Your task to perform on an android device: Is it going to rain today? Image 0: 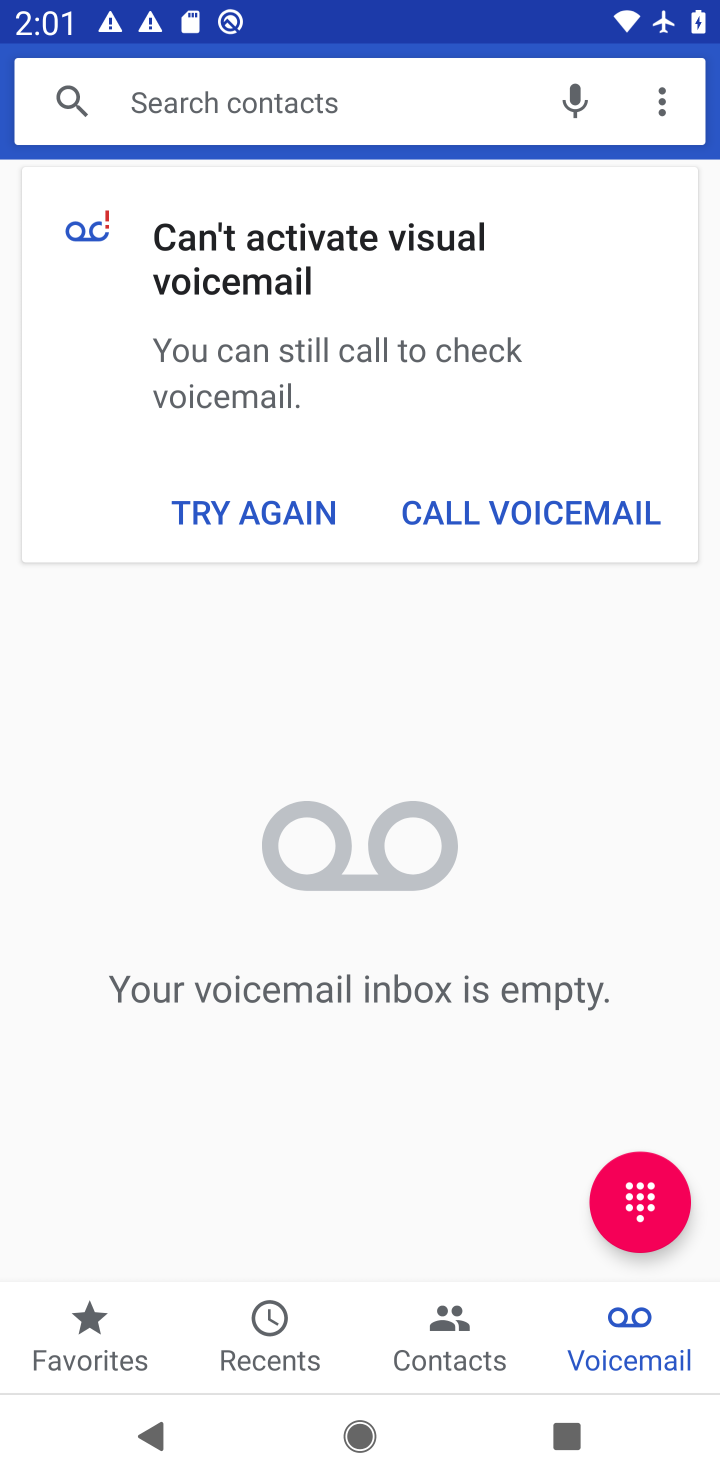
Step 0: press home button
Your task to perform on an android device: Is it going to rain today? Image 1: 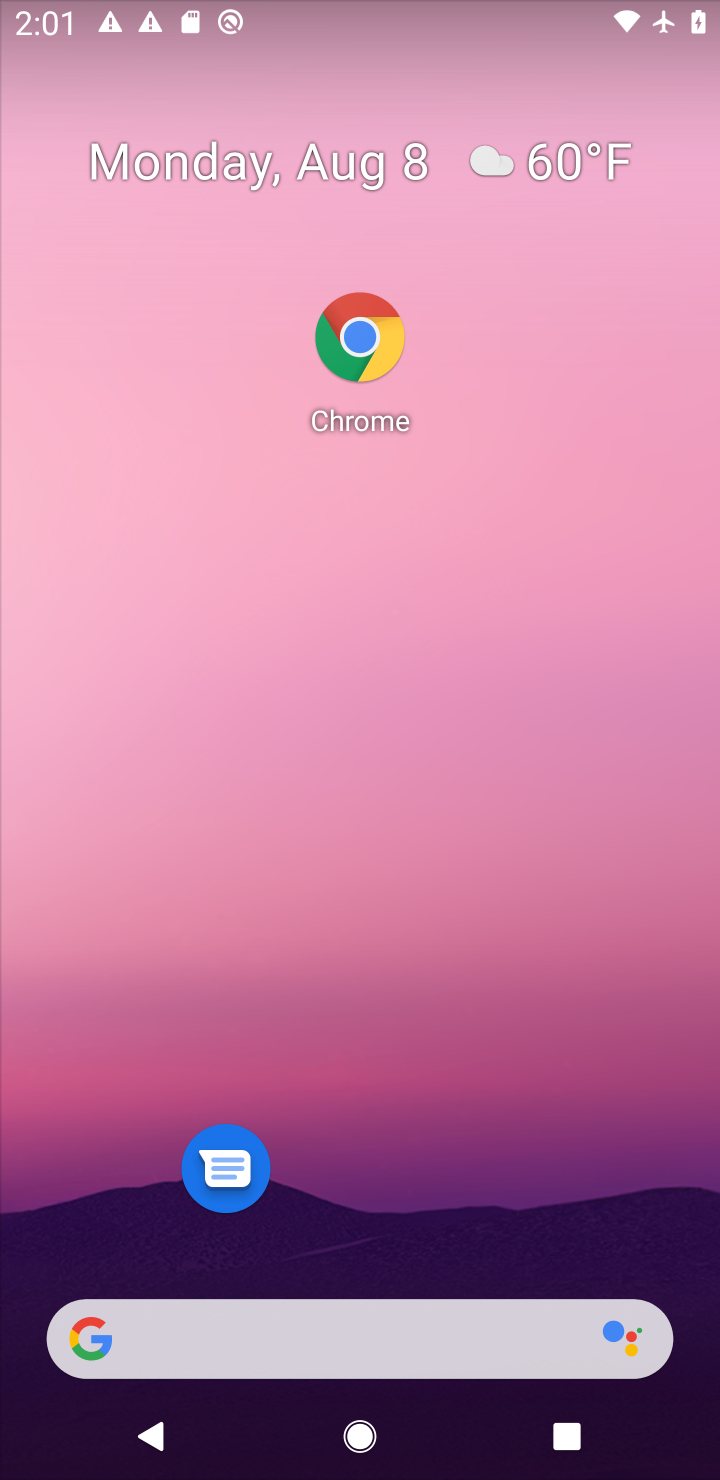
Step 1: click (414, 1337)
Your task to perform on an android device: Is it going to rain today? Image 2: 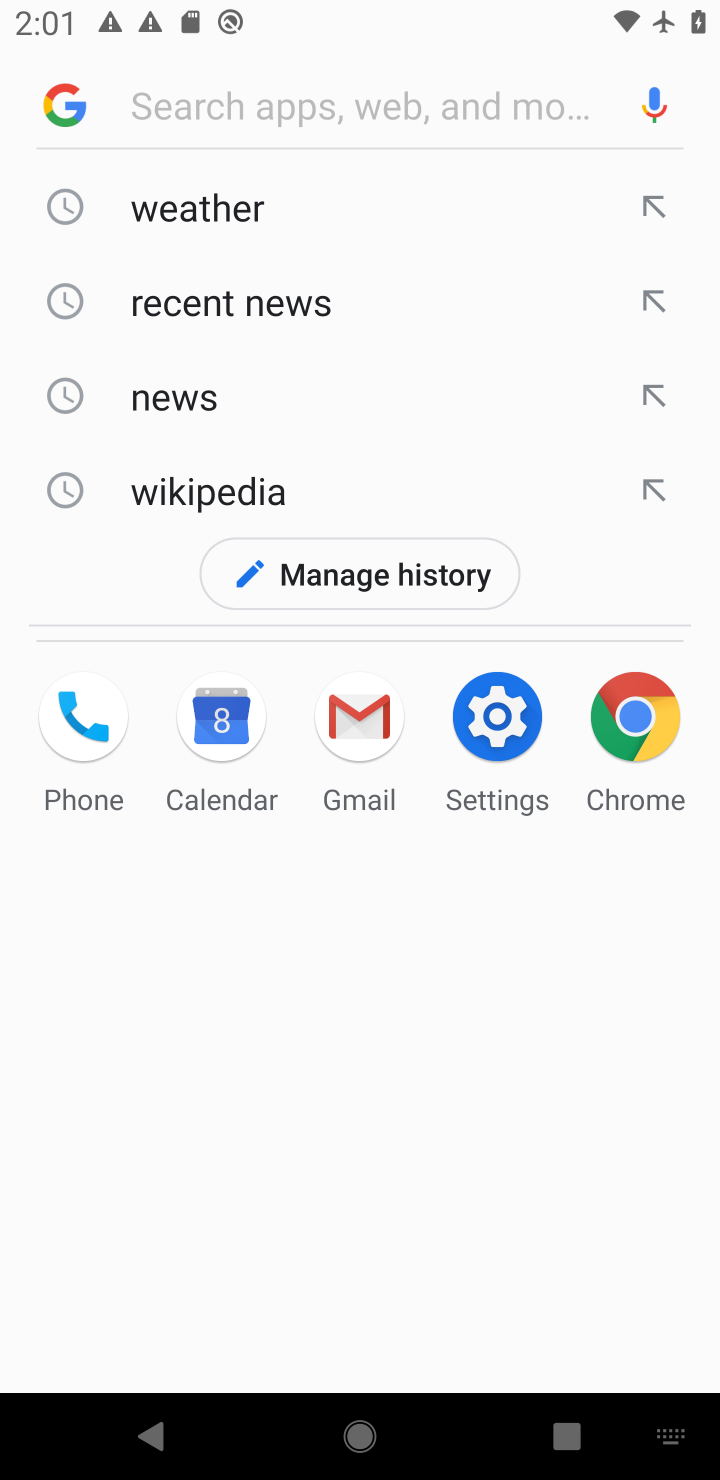
Step 2: type "rain"
Your task to perform on an android device: Is it going to rain today? Image 3: 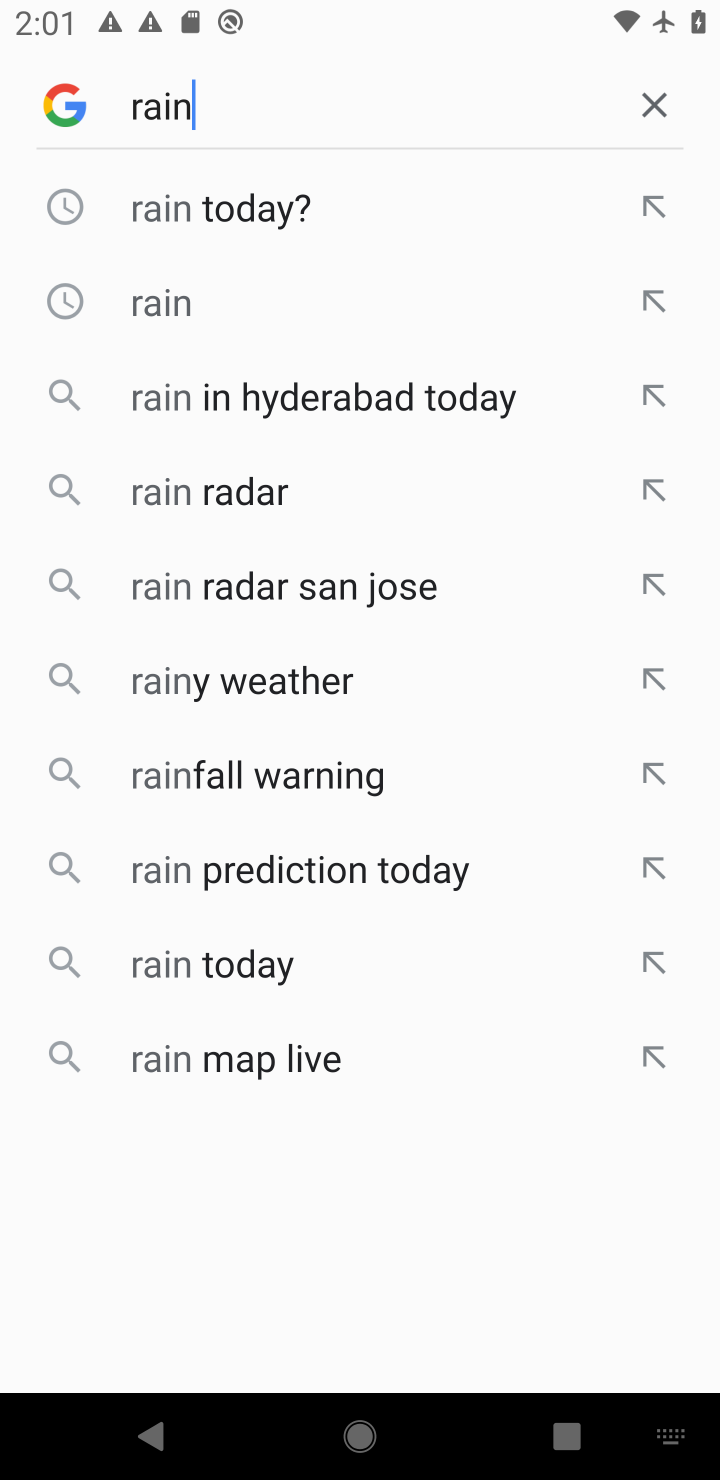
Step 3: click (344, 234)
Your task to perform on an android device: Is it going to rain today? Image 4: 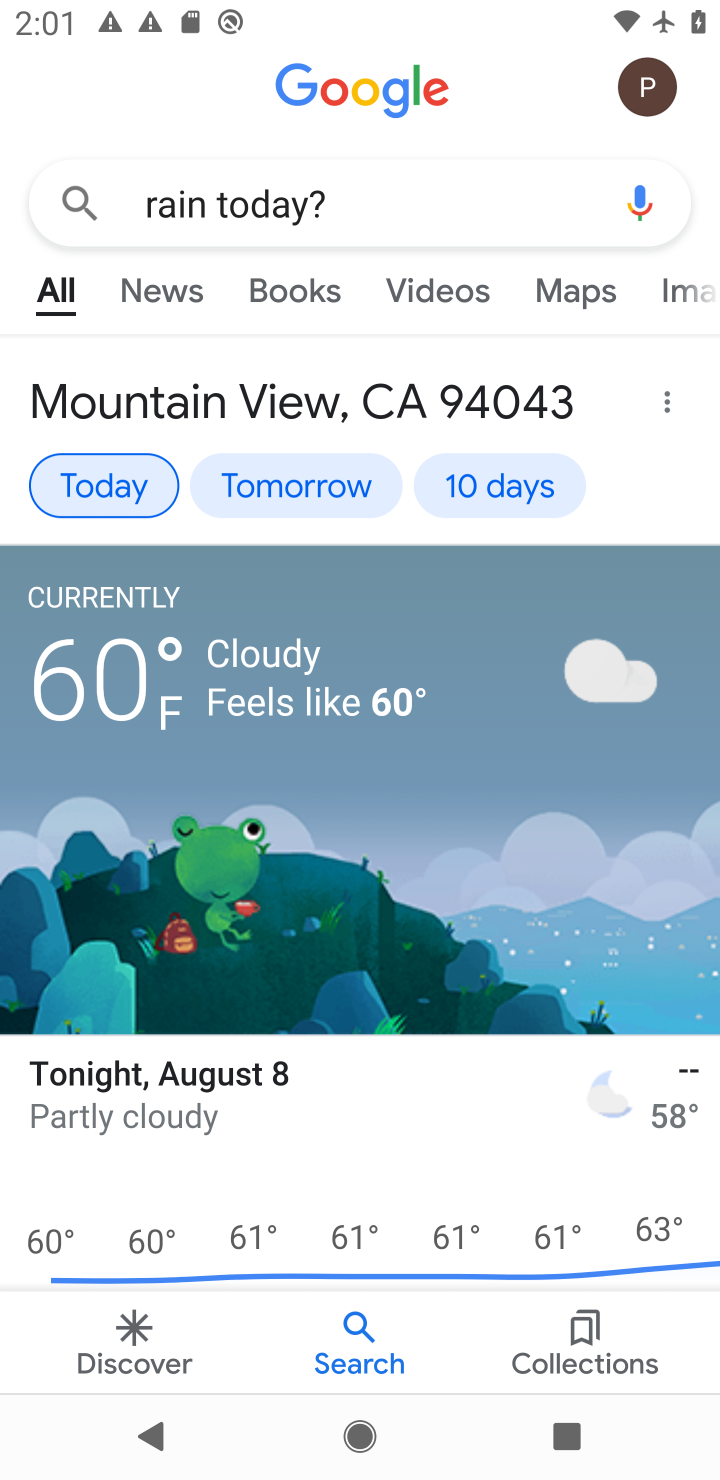
Step 4: task complete